Your task to perform on an android device: Show me productivity apps on the Play Store Image 0: 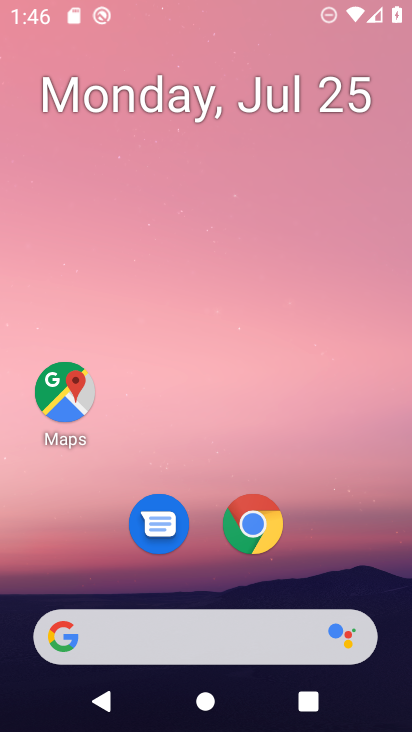
Step 0: press home button
Your task to perform on an android device: Show me productivity apps on the Play Store Image 1: 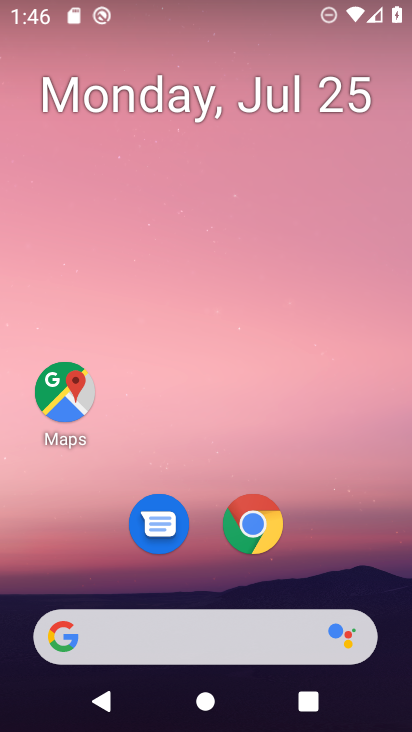
Step 1: drag from (167, 563) to (250, 126)
Your task to perform on an android device: Show me productivity apps on the Play Store Image 2: 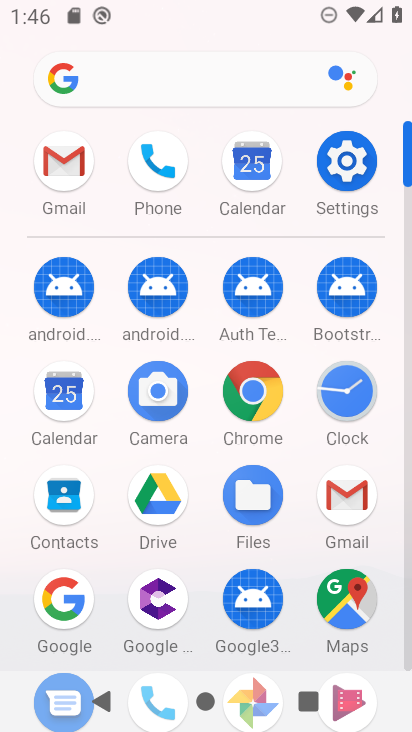
Step 2: drag from (211, 572) to (340, 86)
Your task to perform on an android device: Show me productivity apps on the Play Store Image 3: 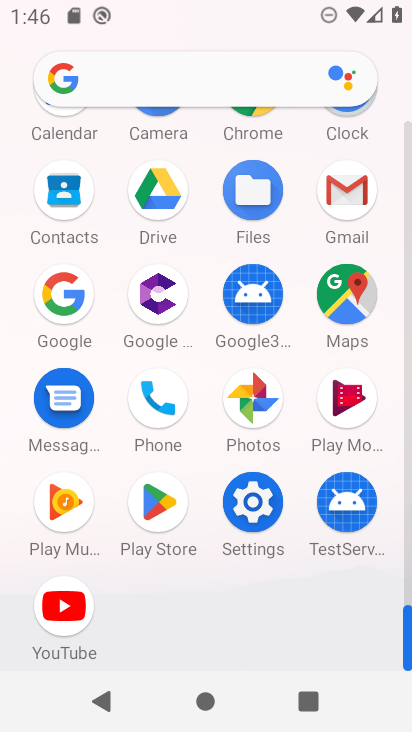
Step 3: click (163, 501)
Your task to perform on an android device: Show me productivity apps on the Play Store Image 4: 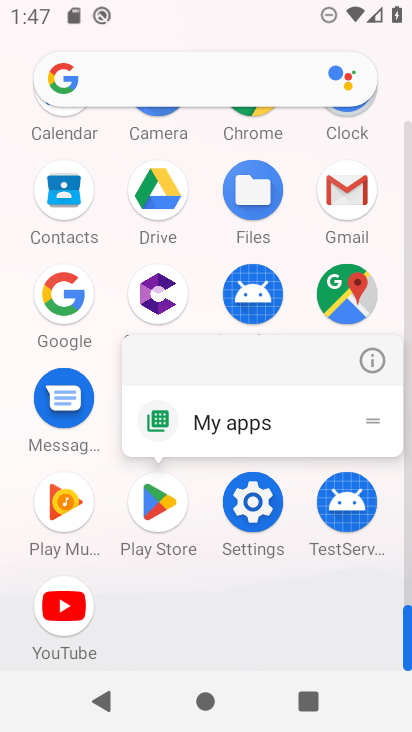
Step 4: click (147, 514)
Your task to perform on an android device: Show me productivity apps on the Play Store Image 5: 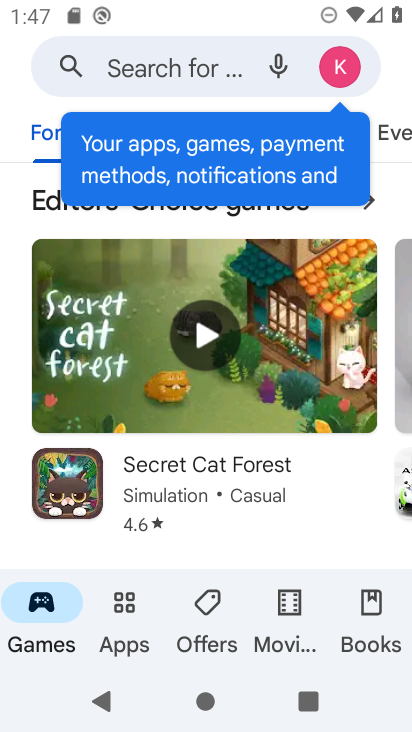
Step 5: click (128, 640)
Your task to perform on an android device: Show me productivity apps on the Play Store Image 6: 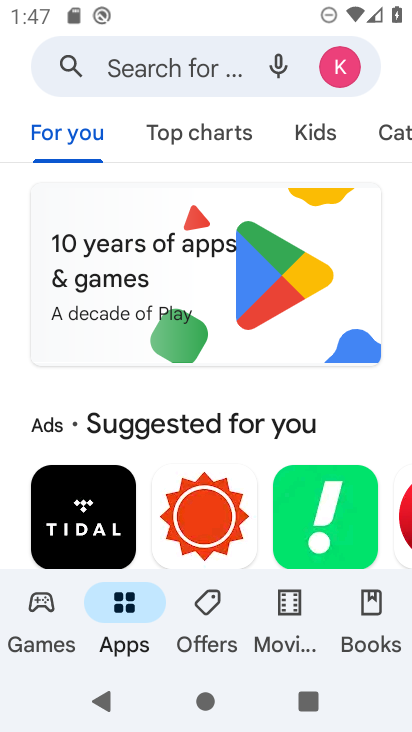
Step 6: click (383, 128)
Your task to perform on an android device: Show me productivity apps on the Play Store Image 7: 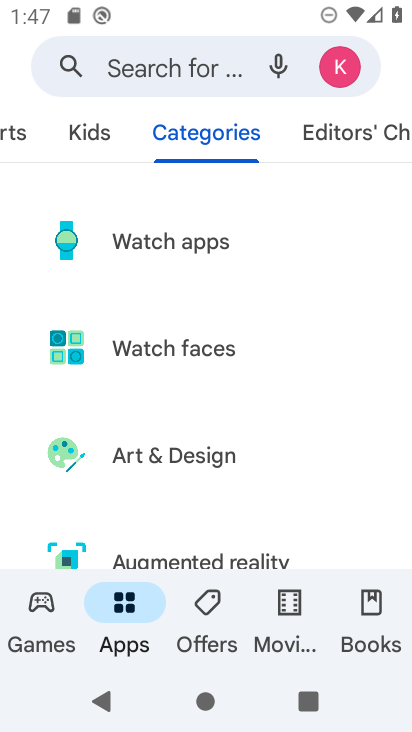
Step 7: drag from (266, 529) to (312, 5)
Your task to perform on an android device: Show me productivity apps on the Play Store Image 8: 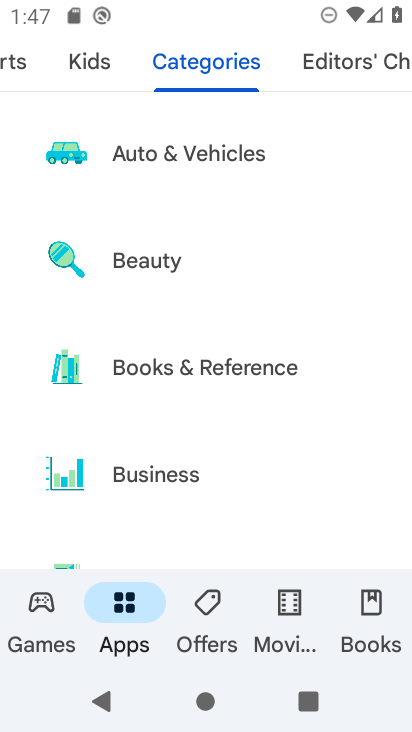
Step 8: drag from (254, 494) to (339, 3)
Your task to perform on an android device: Show me productivity apps on the Play Store Image 9: 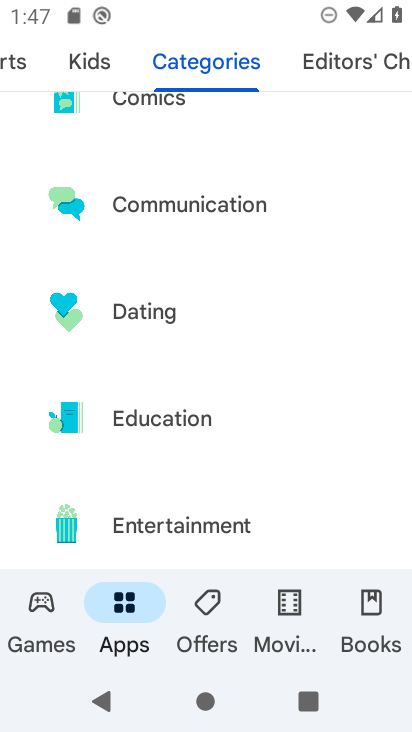
Step 9: drag from (290, 497) to (363, 78)
Your task to perform on an android device: Show me productivity apps on the Play Store Image 10: 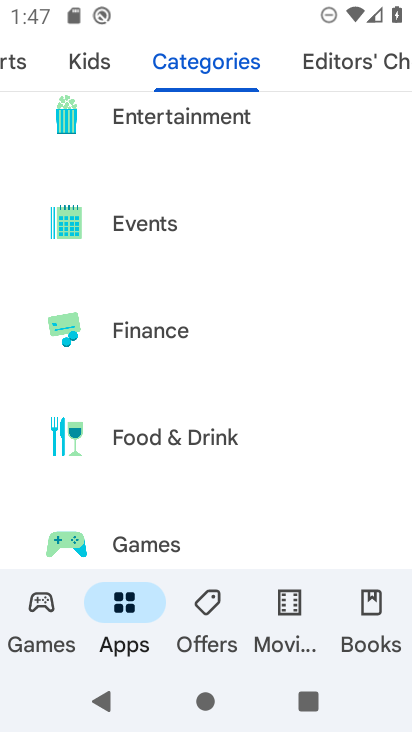
Step 10: drag from (274, 516) to (332, 155)
Your task to perform on an android device: Show me productivity apps on the Play Store Image 11: 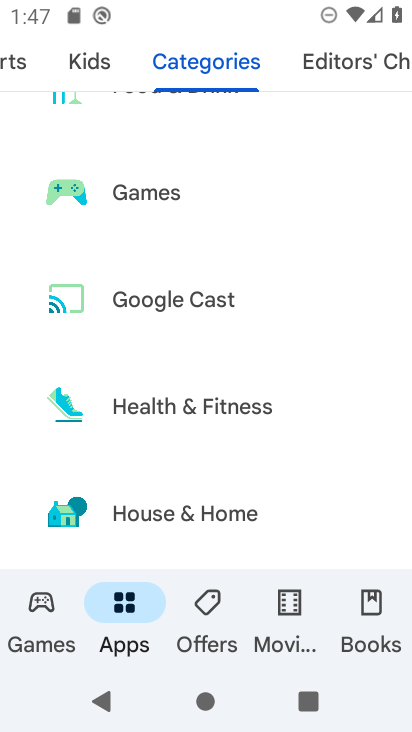
Step 11: drag from (309, 551) to (364, 76)
Your task to perform on an android device: Show me productivity apps on the Play Store Image 12: 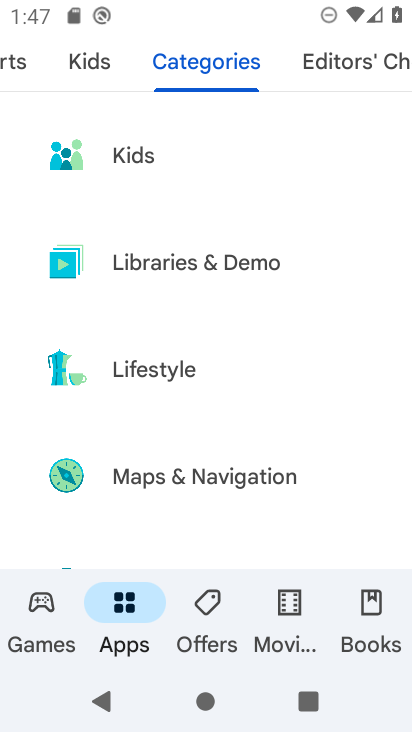
Step 12: drag from (302, 537) to (330, 48)
Your task to perform on an android device: Show me productivity apps on the Play Store Image 13: 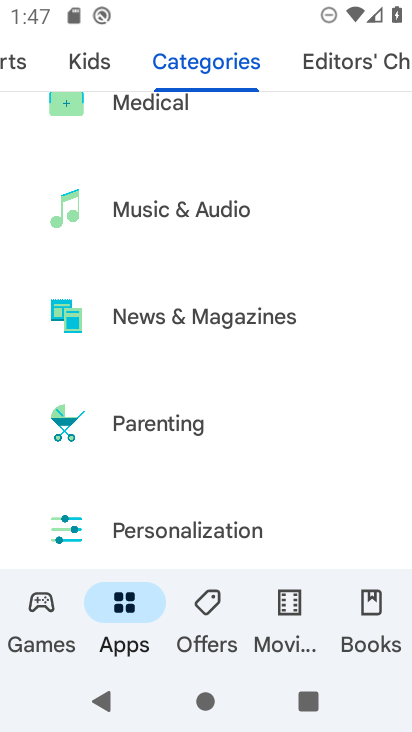
Step 13: drag from (286, 476) to (369, 89)
Your task to perform on an android device: Show me productivity apps on the Play Store Image 14: 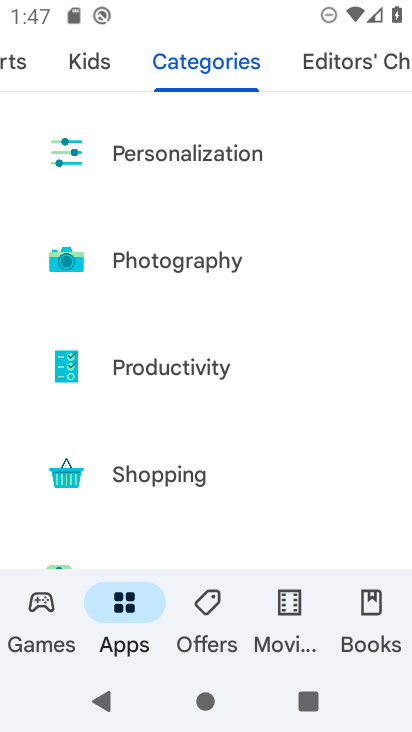
Step 14: drag from (249, 515) to (337, 78)
Your task to perform on an android device: Show me productivity apps on the Play Store Image 15: 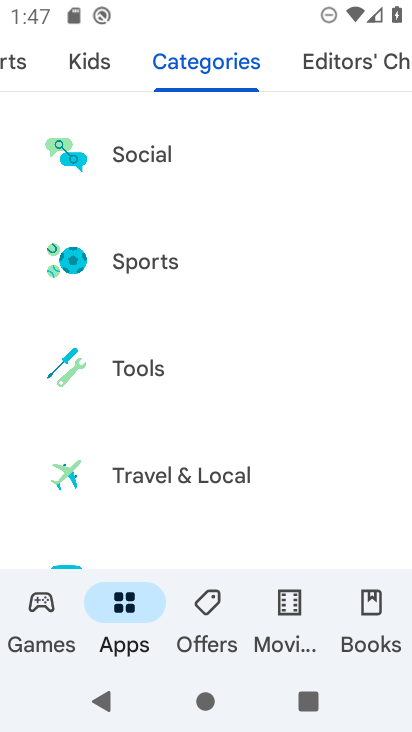
Step 15: drag from (322, 145) to (326, 601)
Your task to perform on an android device: Show me productivity apps on the Play Store Image 16: 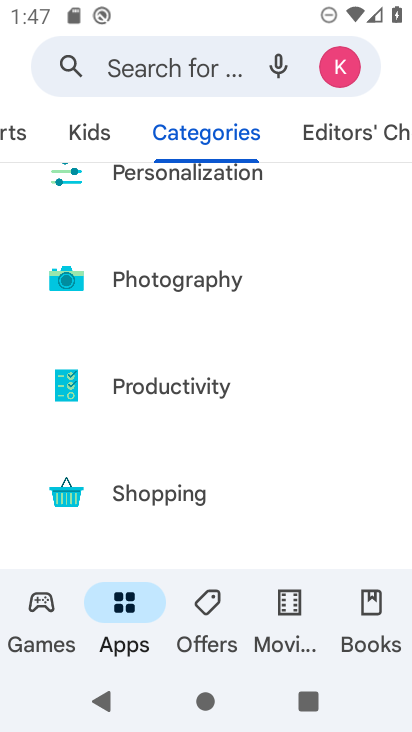
Step 16: click (198, 391)
Your task to perform on an android device: Show me productivity apps on the Play Store Image 17: 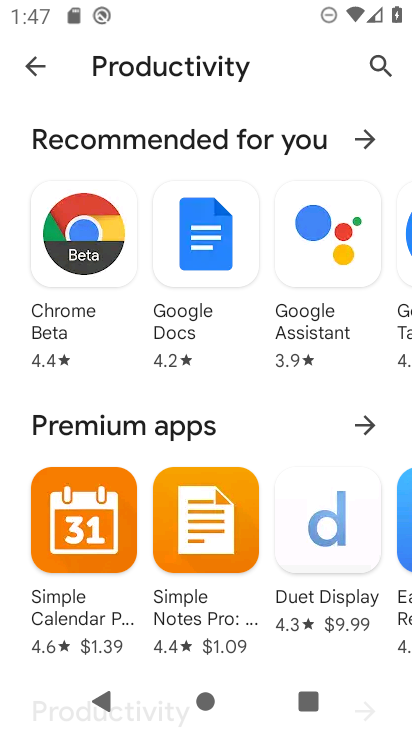
Step 17: task complete